Your task to perform on an android device: Go to notification settings Image 0: 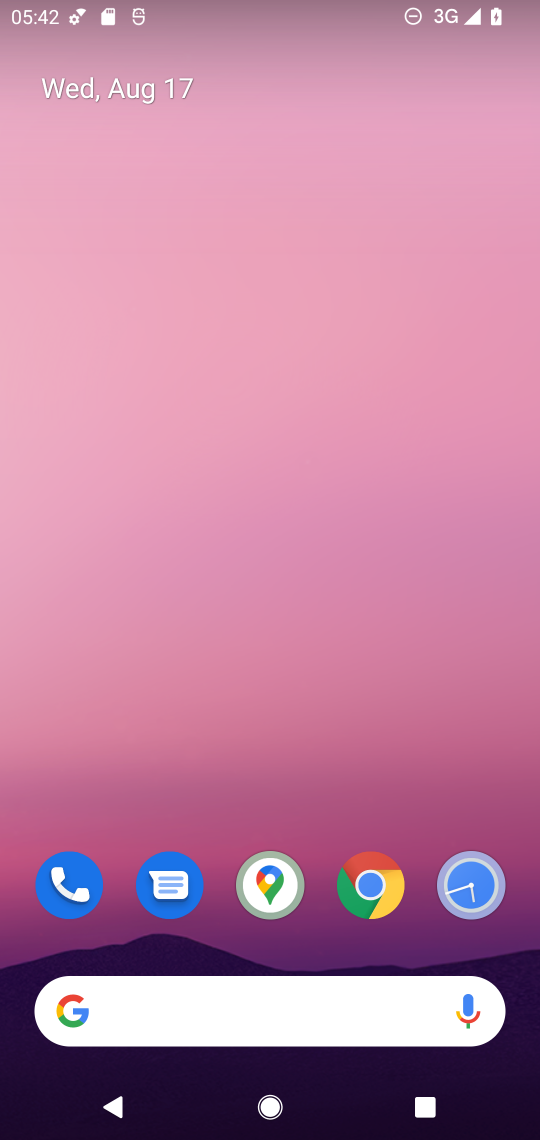
Step 0: drag from (409, 816) to (292, 156)
Your task to perform on an android device: Go to notification settings Image 1: 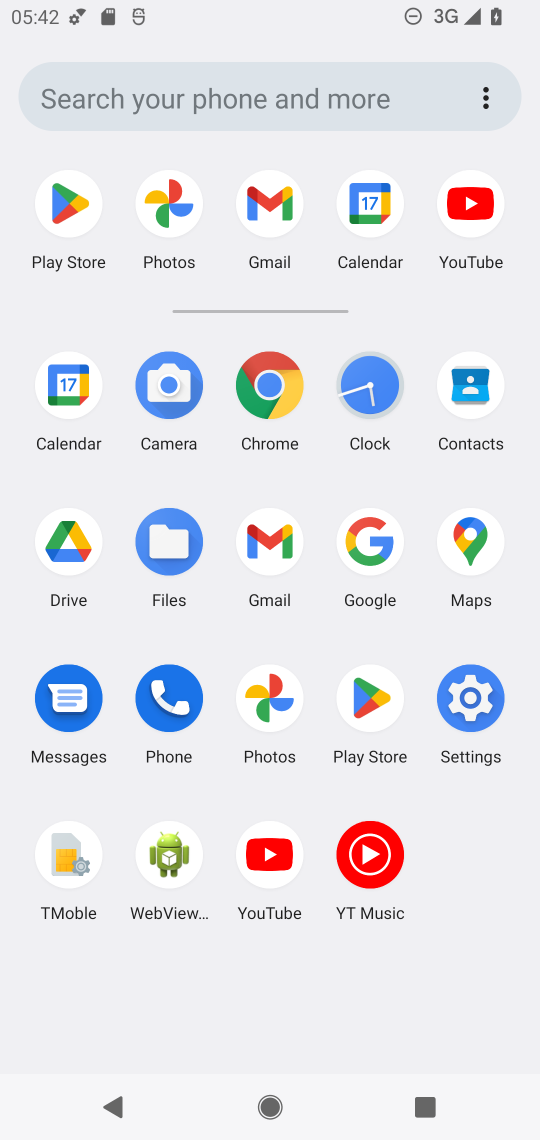
Step 1: click (472, 708)
Your task to perform on an android device: Go to notification settings Image 2: 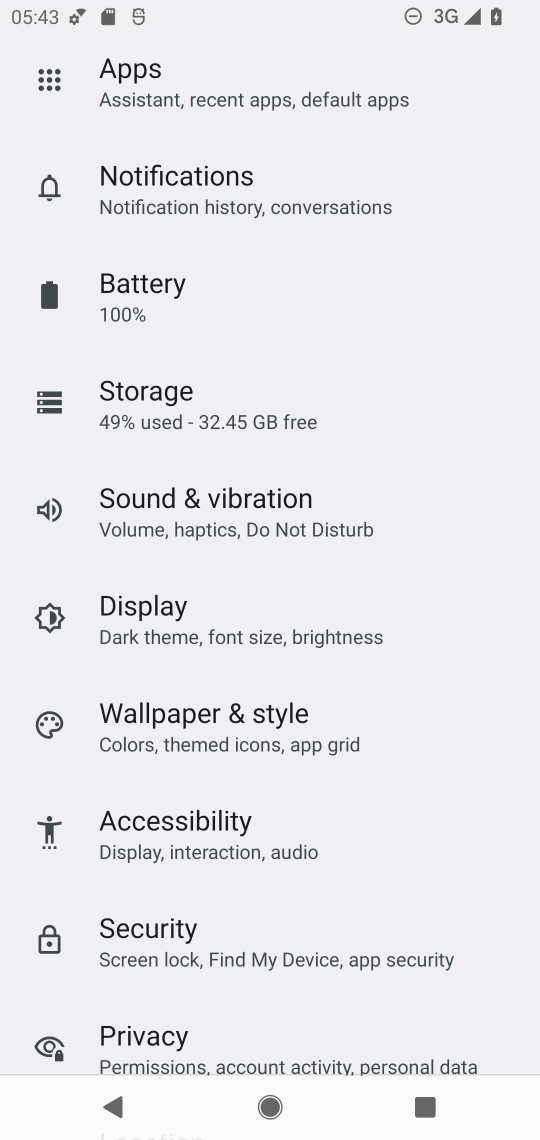
Step 2: click (194, 186)
Your task to perform on an android device: Go to notification settings Image 3: 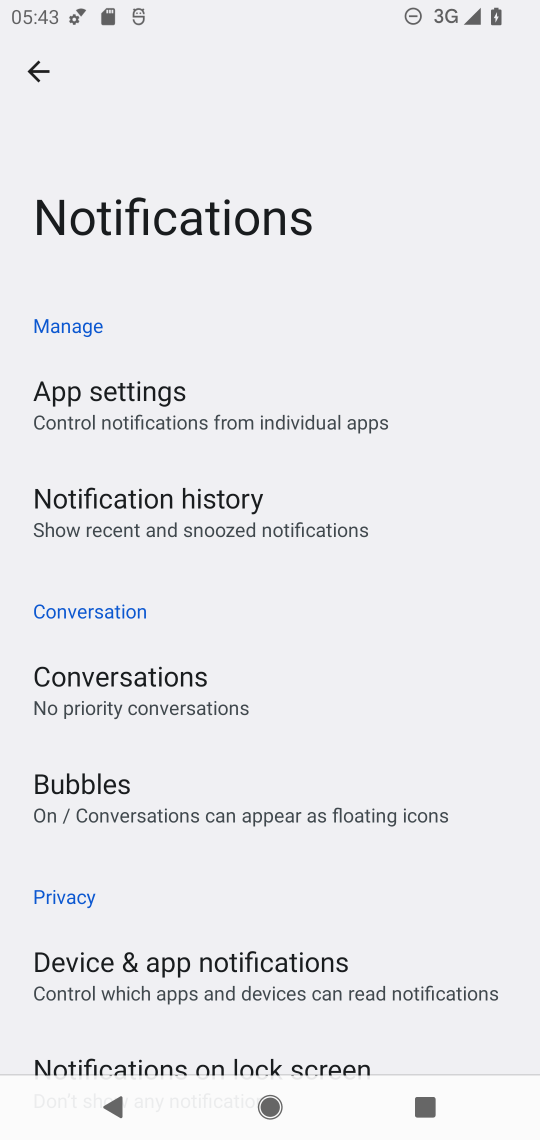
Step 3: task complete